Your task to perform on an android device: toggle improve location accuracy Image 0: 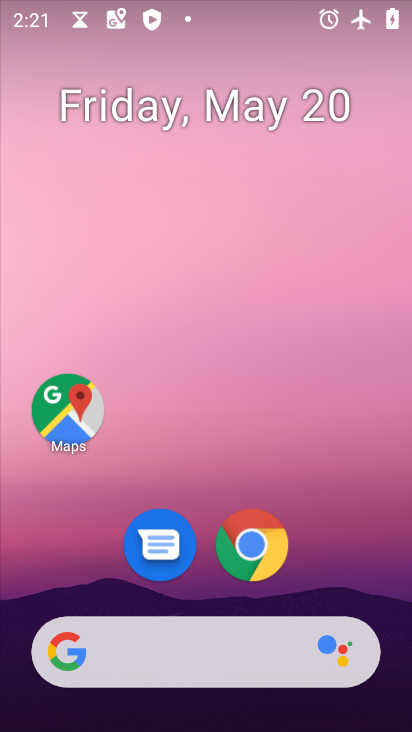
Step 0: drag from (328, 562) to (288, 38)
Your task to perform on an android device: toggle improve location accuracy Image 1: 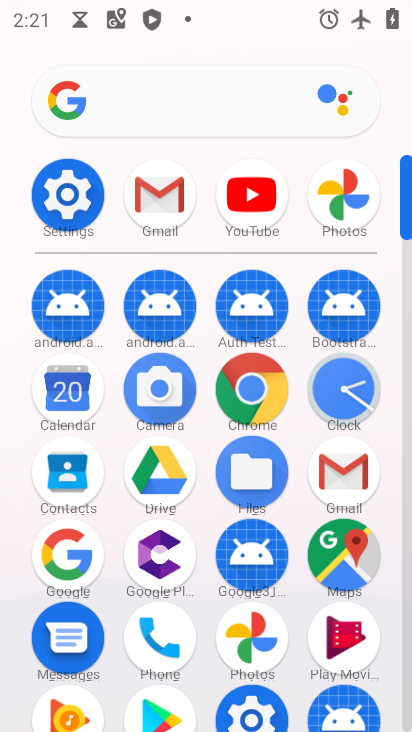
Step 1: click (84, 196)
Your task to perform on an android device: toggle improve location accuracy Image 2: 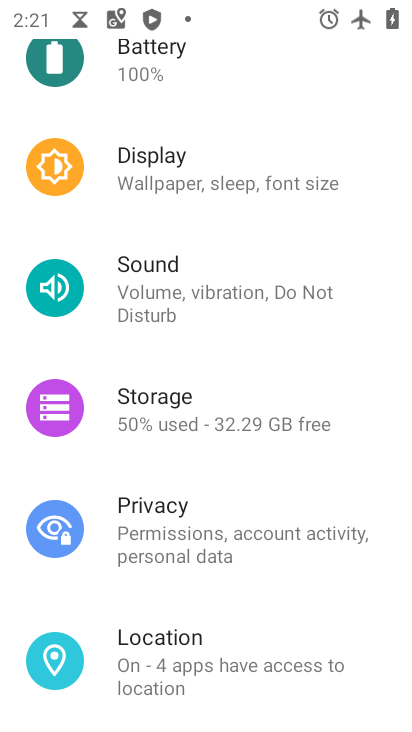
Step 2: click (197, 638)
Your task to perform on an android device: toggle improve location accuracy Image 3: 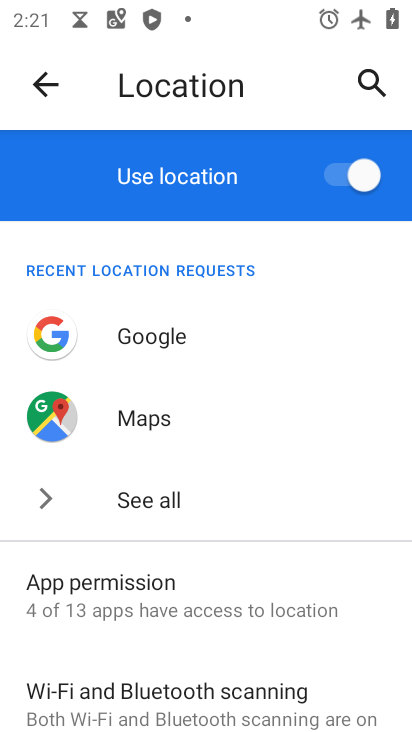
Step 3: drag from (292, 636) to (265, 244)
Your task to perform on an android device: toggle improve location accuracy Image 4: 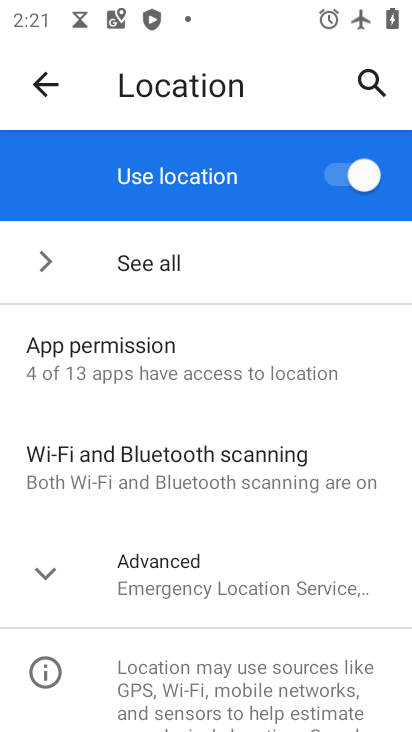
Step 4: click (263, 589)
Your task to perform on an android device: toggle improve location accuracy Image 5: 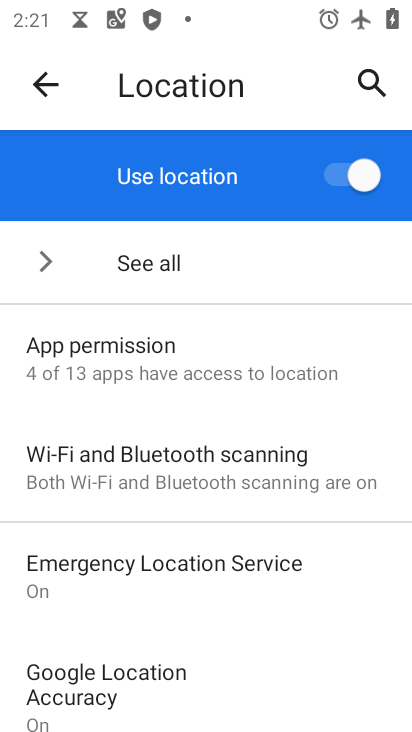
Step 5: drag from (274, 646) to (282, 457)
Your task to perform on an android device: toggle improve location accuracy Image 6: 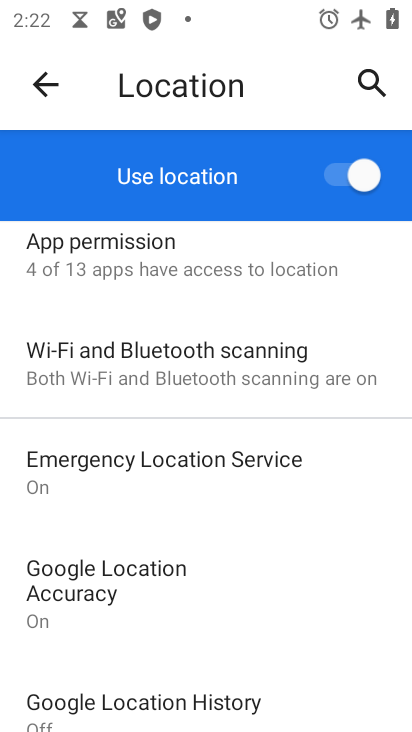
Step 6: click (121, 588)
Your task to perform on an android device: toggle improve location accuracy Image 7: 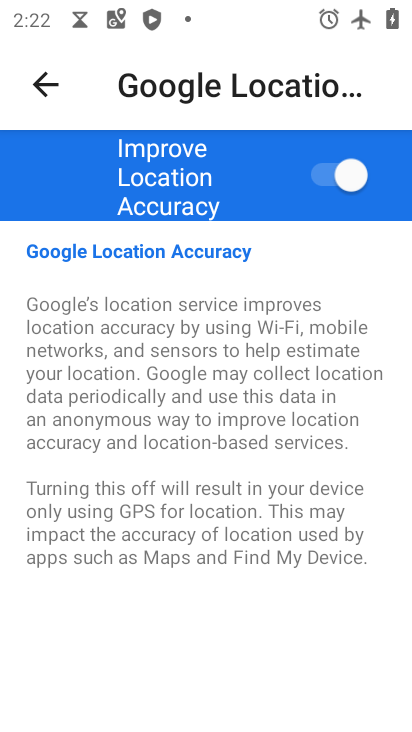
Step 7: click (325, 170)
Your task to perform on an android device: toggle improve location accuracy Image 8: 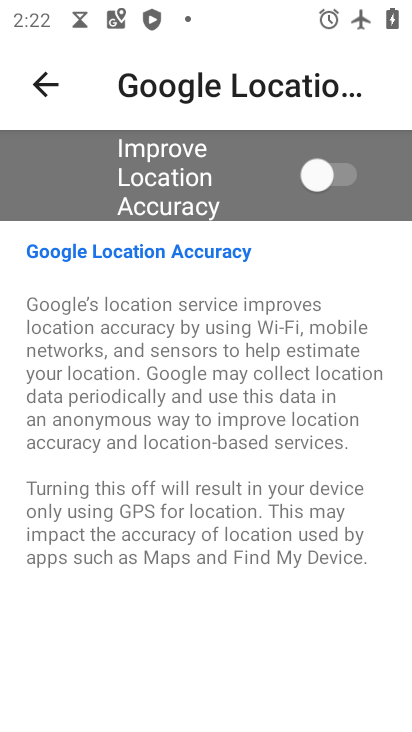
Step 8: task complete